Your task to perform on an android device: Open Google Image 0: 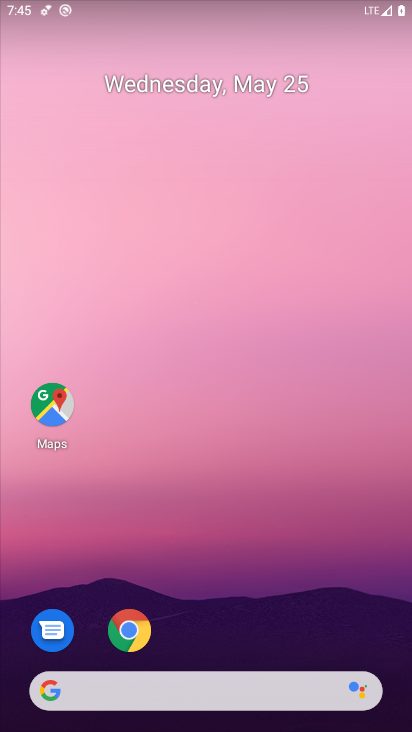
Step 0: drag from (164, 680) to (261, 235)
Your task to perform on an android device: Open Google Image 1: 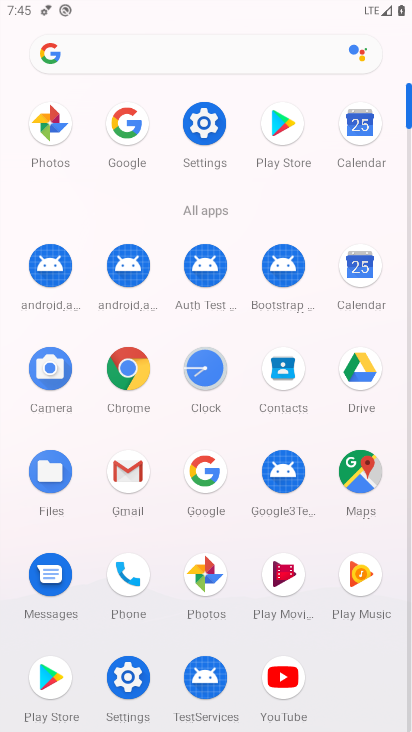
Step 1: click (207, 476)
Your task to perform on an android device: Open Google Image 2: 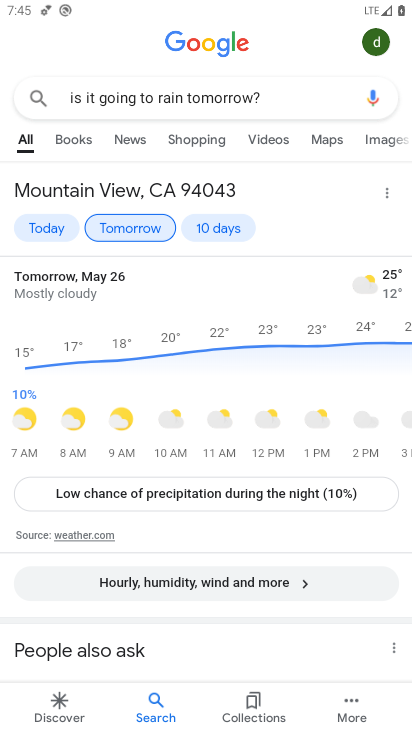
Step 2: click (289, 90)
Your task to perform on an android device: Open Google Image 3: 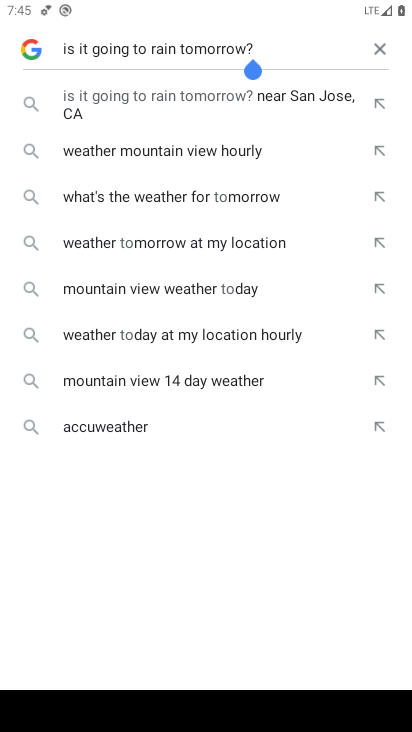
Step 3: click (380, 46)
Your task to perform on an android device: Open Google Image 4: 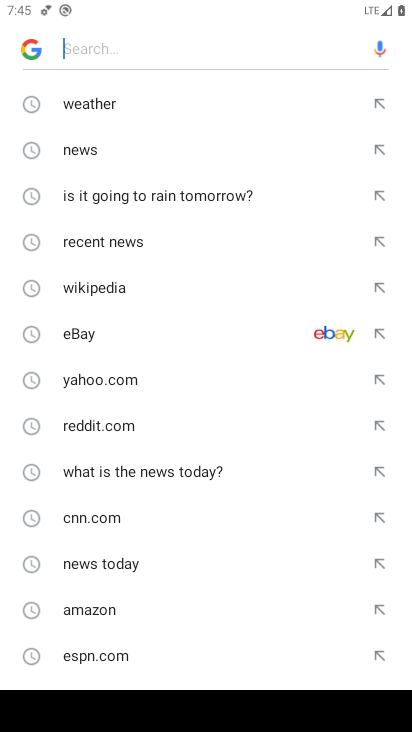
Step 4: task complete